Your task to perform on an android device: turn off javascript in the chrome app Image 0: 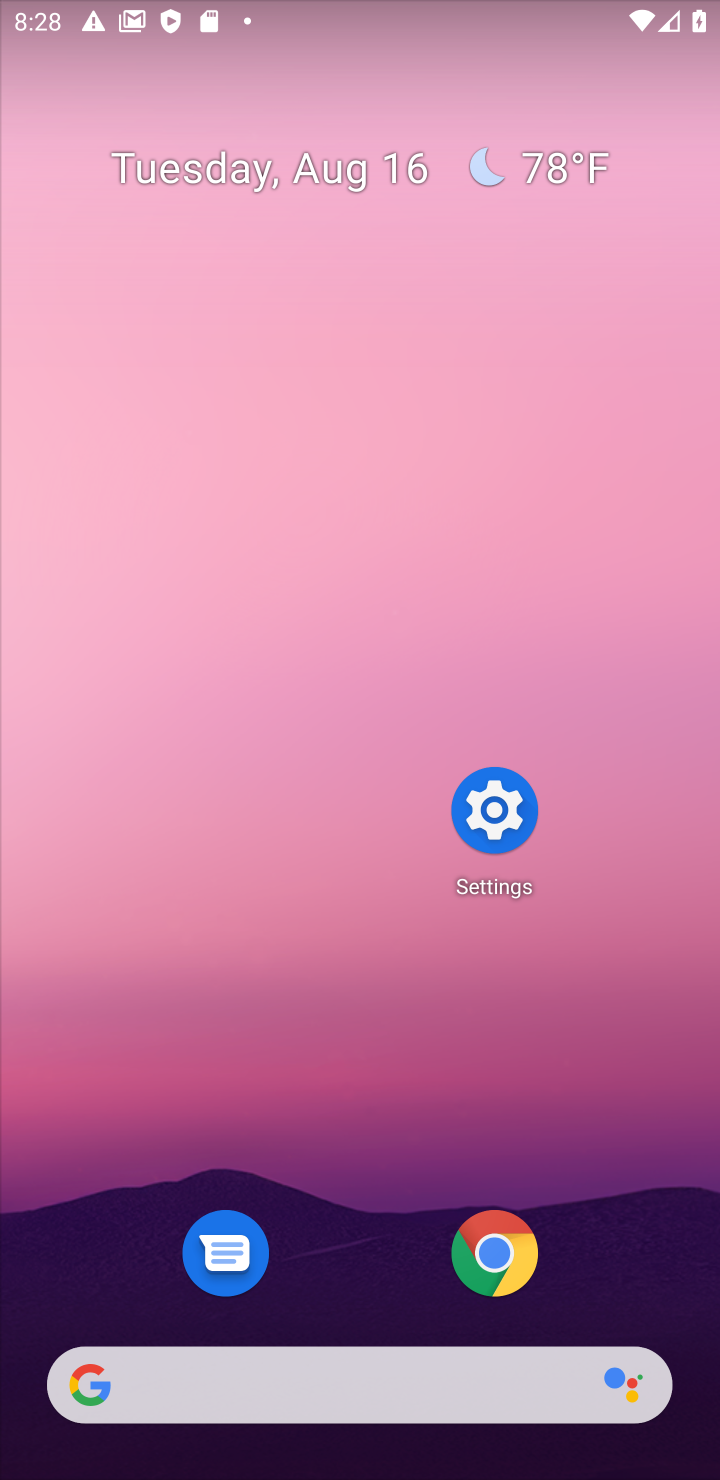
Step 0: press home button
Your task to perform on an android device: turn off javascript in the chrome app Image 1: 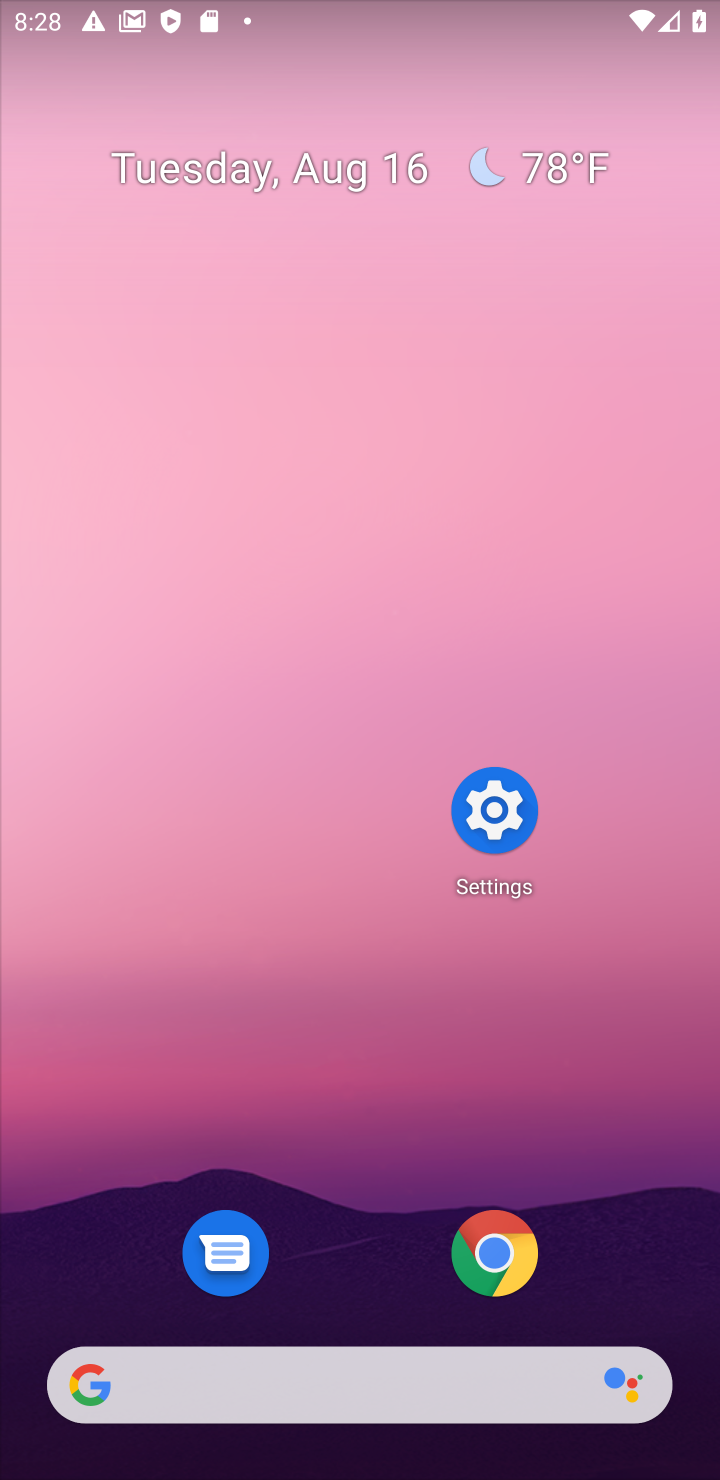
Step 1: click (499, 805)
Your task to perform on an android device: turn off javascript in the chrome app Image 2: 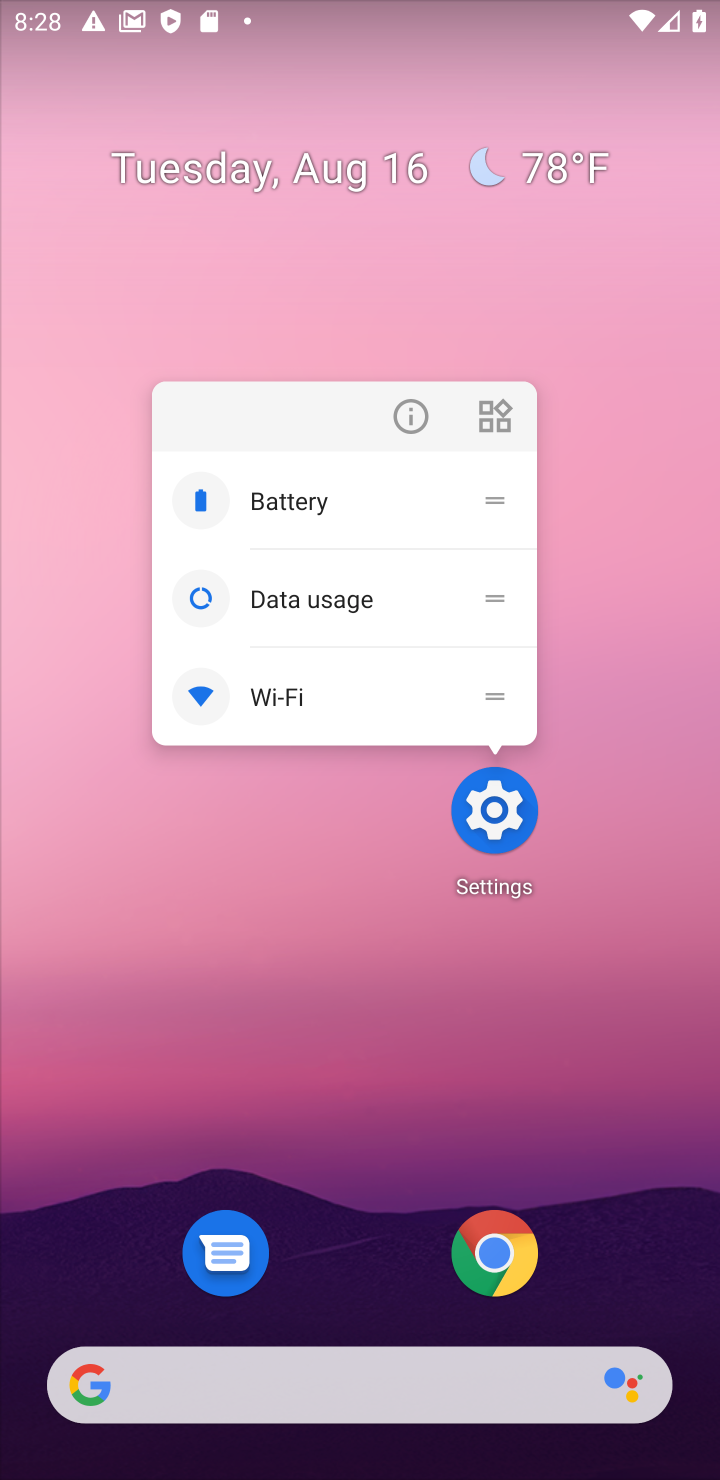
Step 2: click (500, 800)
Your task to perform on an android device: turn off javascript in the chrome app Image 3: 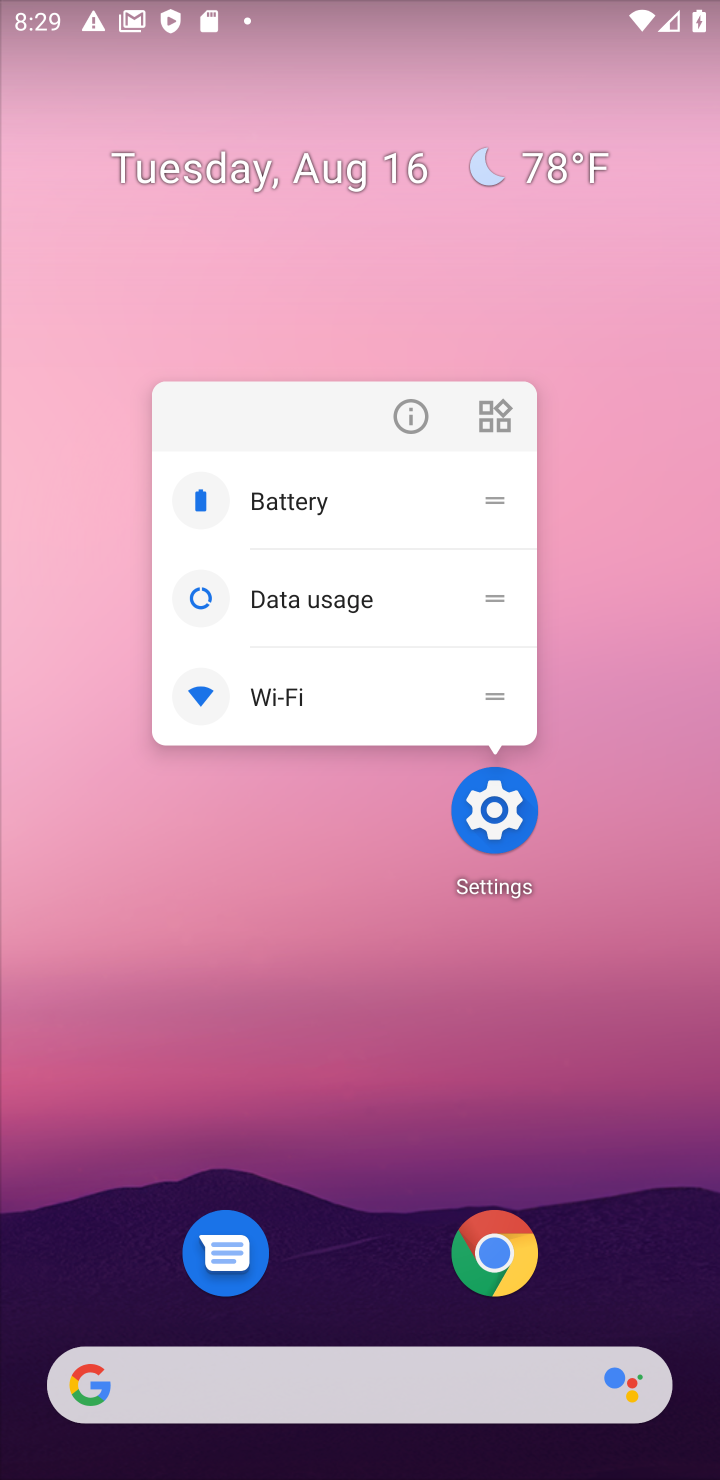
Step 3: click (502, 792)
Your task to perform on an android device: turn off javascript in the chrome app Image 4: 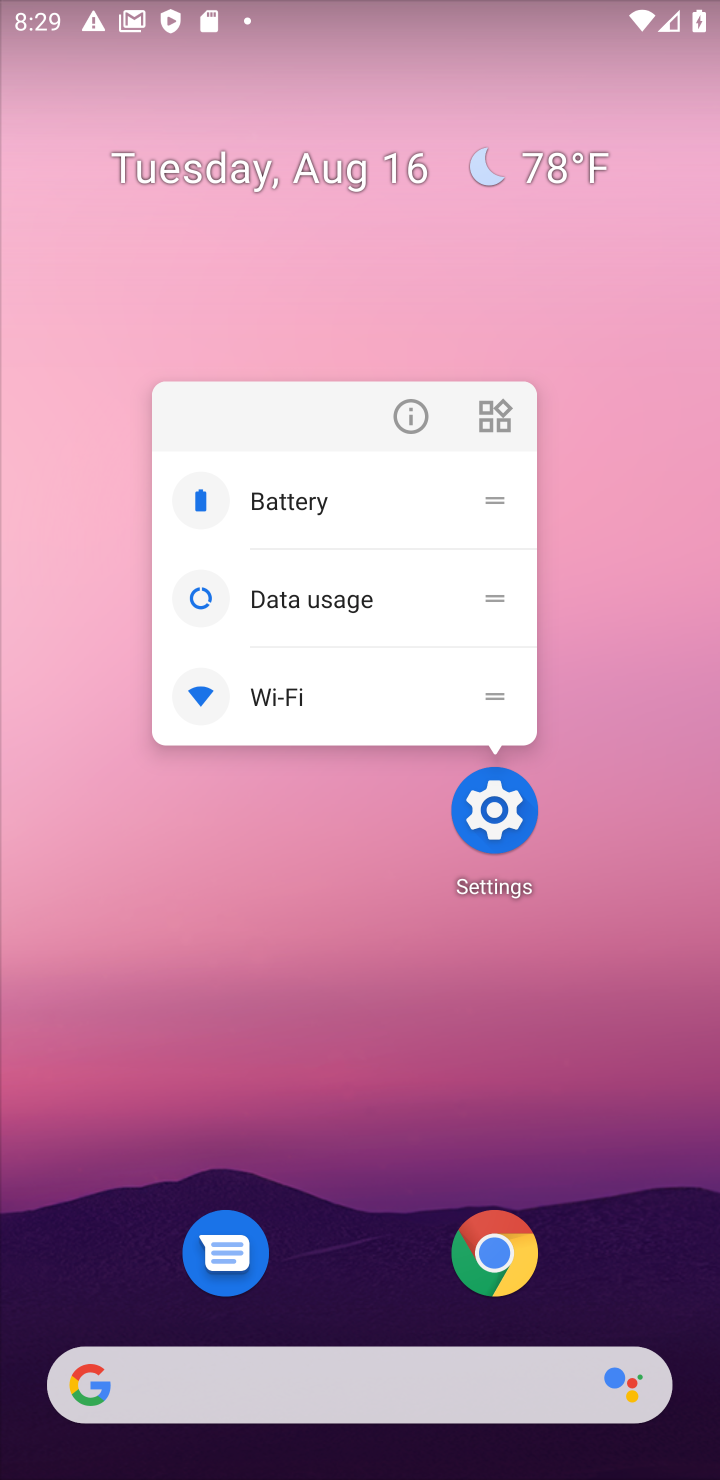
Step 4: click (494, 1256)
Your task to perform on an android device: turn off javascript in the chrome app Image 5: 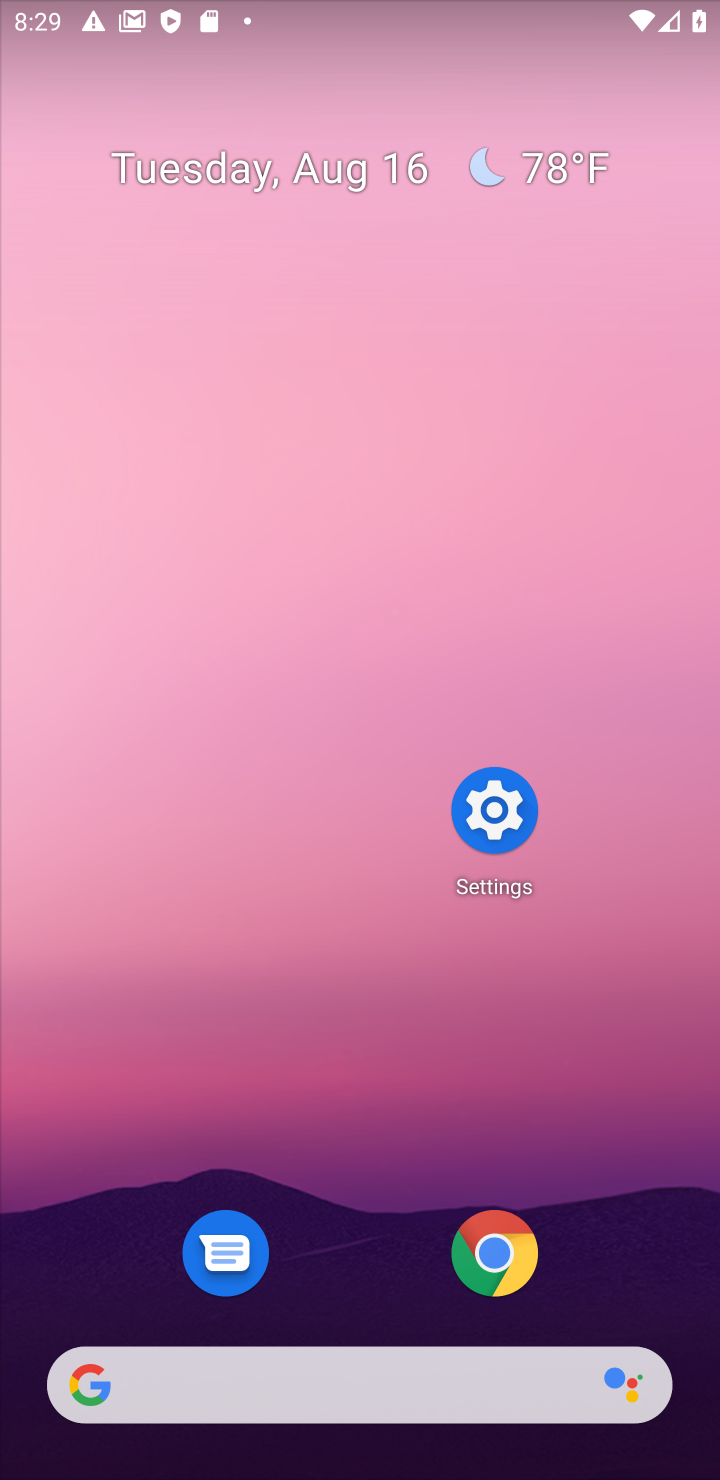
Step 5: click (494, 1266)
Your task to perform on an android device: turn off javascript in the chrome app Image 6: 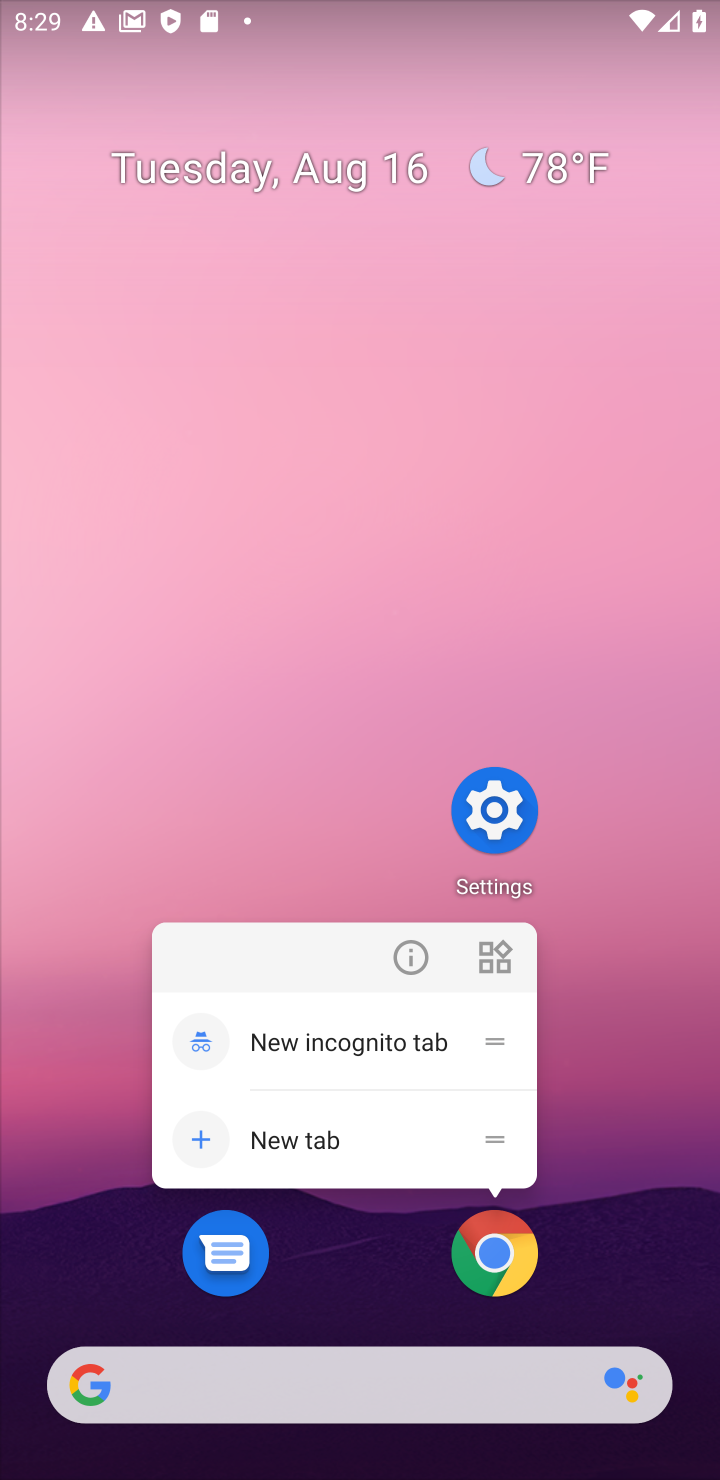
Step 6: click (494, 1266)
Your task to perform on an android device: turn off javascript in the chrome app Image 7: 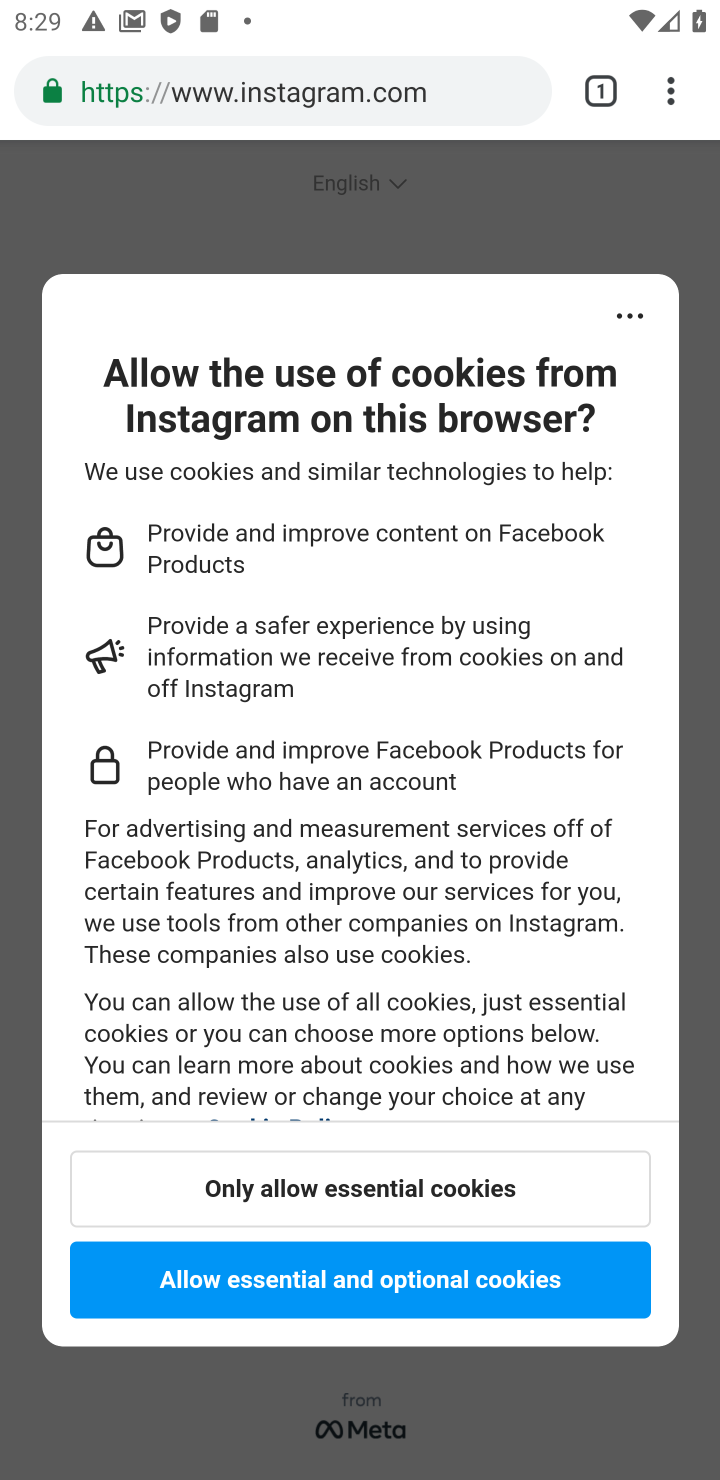
Step 7: drag from (653, 91) to (384, 1097)
Your task to perform on an android device: turn off javascript in the chrome app Image 8: 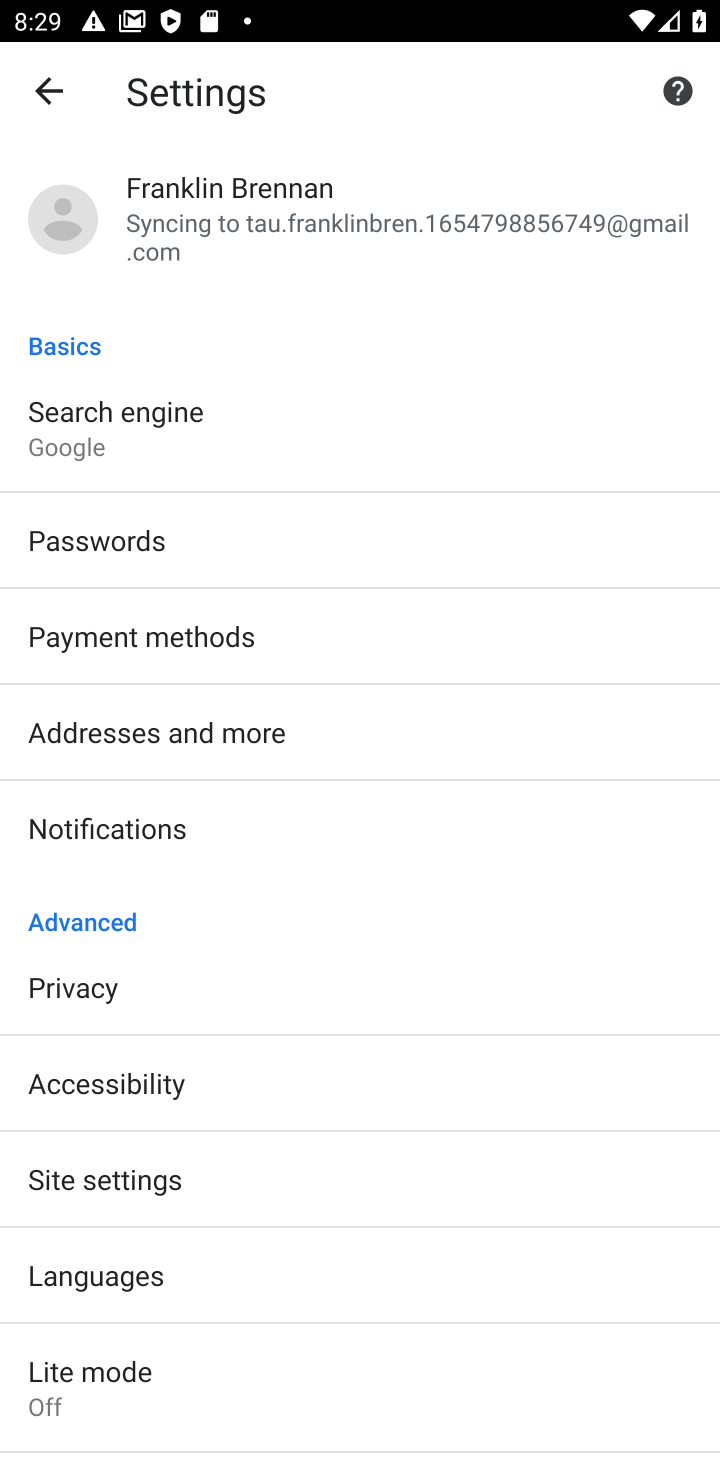
Step 8: click (137, 1185)
Your task to perform on an android device: turn off javascript in the chrome app Image 9: 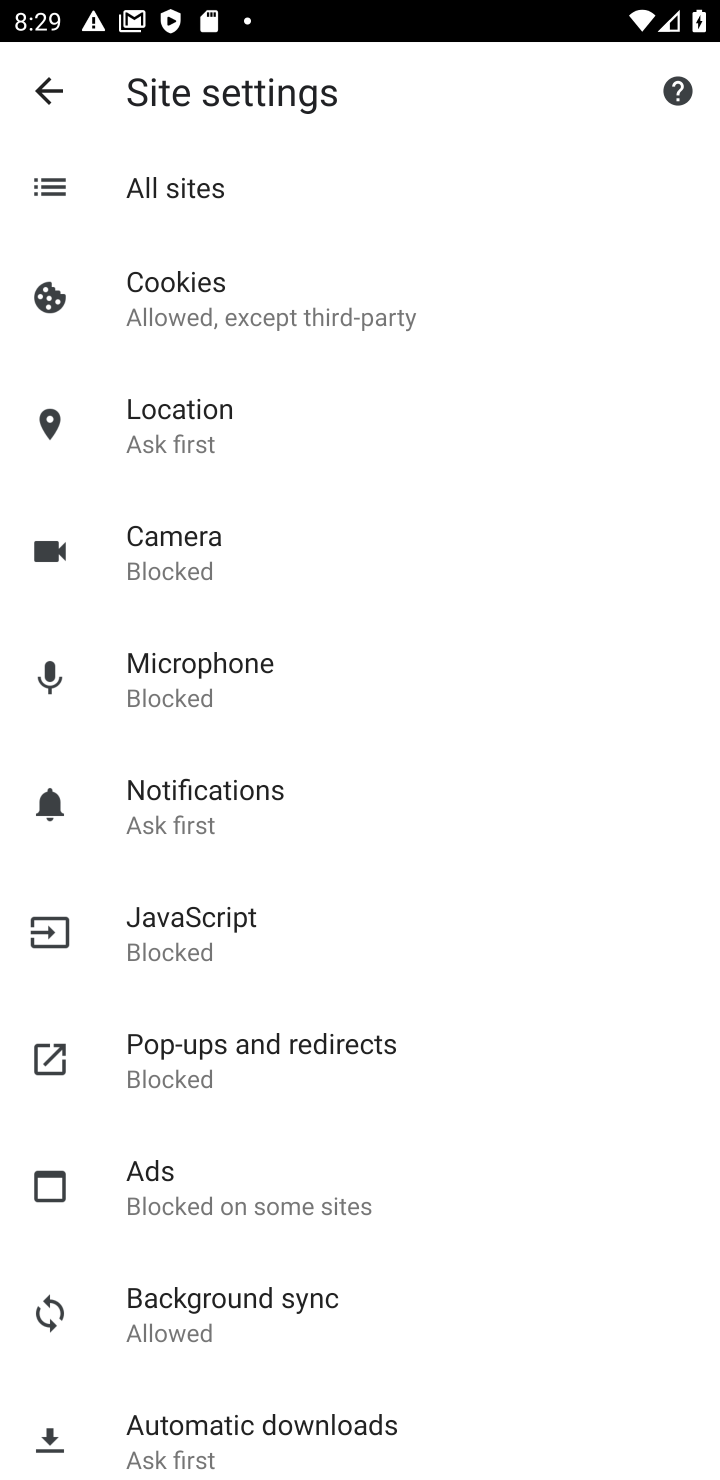
Step 9: click (225, 938)
Your task to perform on an android device: turn off javascript in the chrome app Image 10: 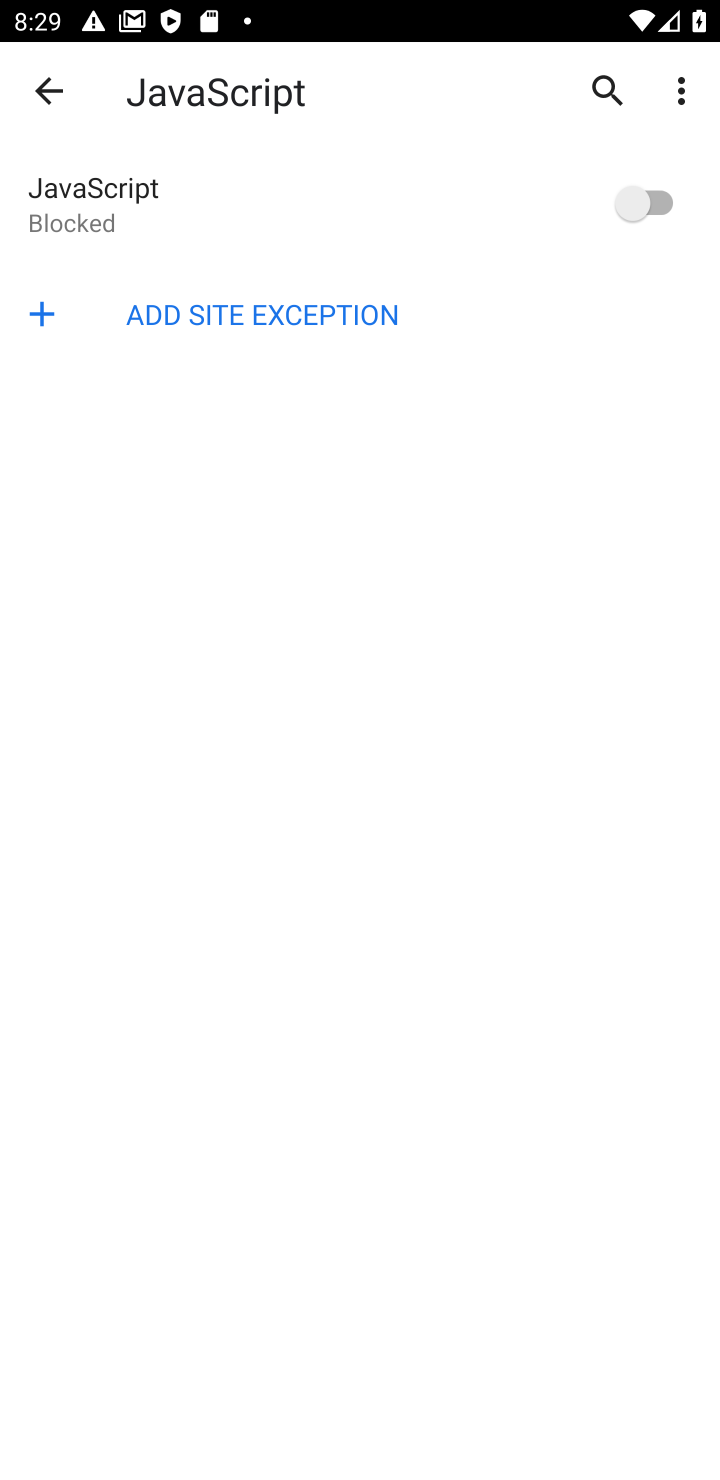
Step 10: task complete